Your task to perform on an android device: change the clock display to analog Image 0: 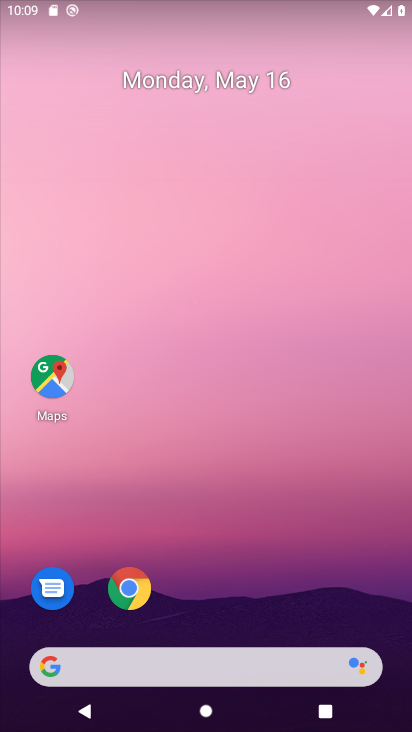
Step 0: drag from (215, 630) to (252, 0)
Your task to perform on an android device: change the clock display to analog Image 1: 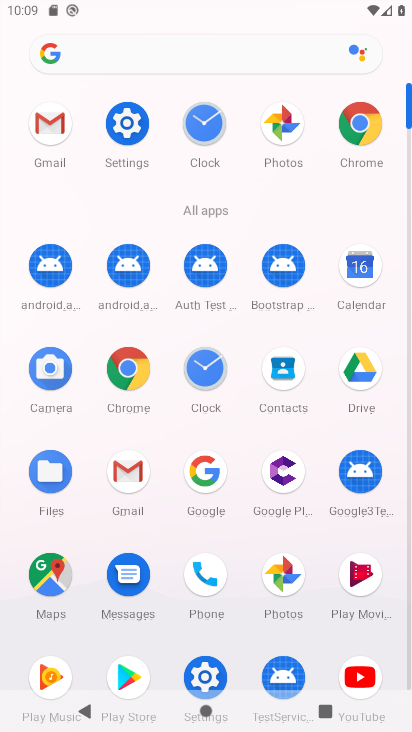
Step 1: click (208, 365)
Your task to perform on an android device: change the clock display to analog Image 2: 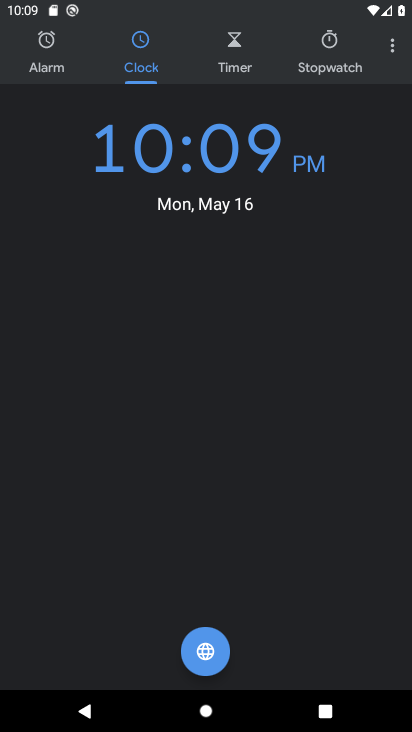
Step 2: click (397, 47)
Your task to perform on an android device: change the clock display to analog Image 3: 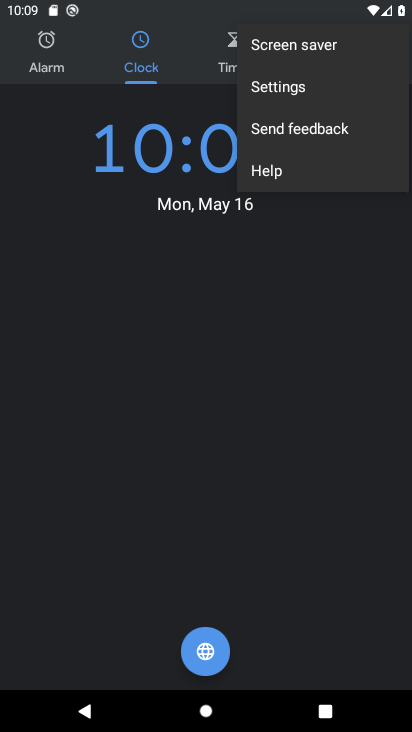
Step 3: click (309, 90)
Your task to perform on an android device: change the clock display to analog Image 4: 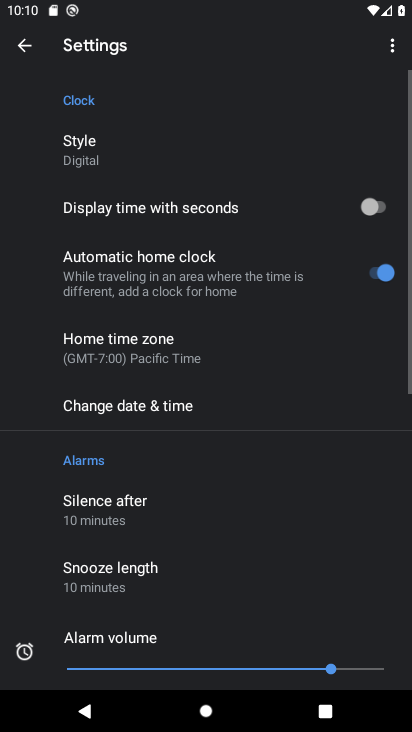
Step 4: click (127, 145)
Your task to perform on an android device: change the clock display to analog Image 5: 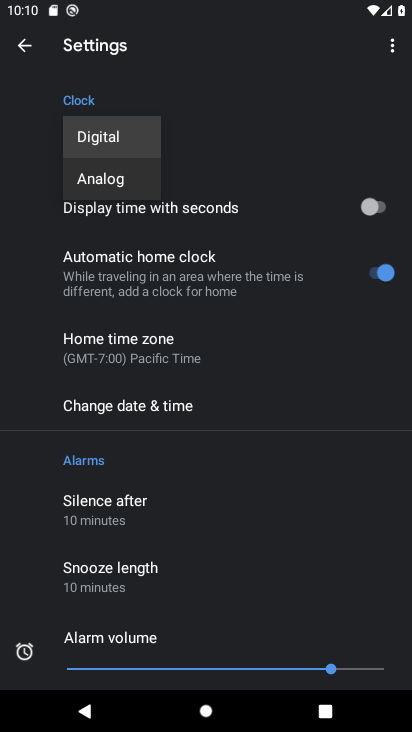
Step 5: click (144, 178)
Your task to perform on an android device: change the clock display to analog Image 6: 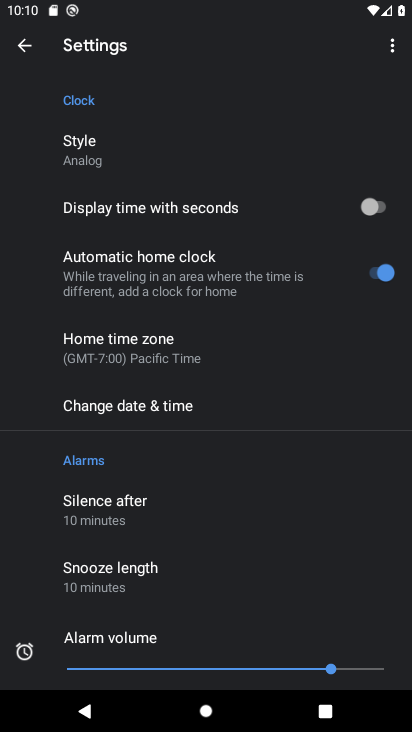
Step 6: task complete